Your task to perform on an android device: manage bookmarks in the chrome app Image 0: 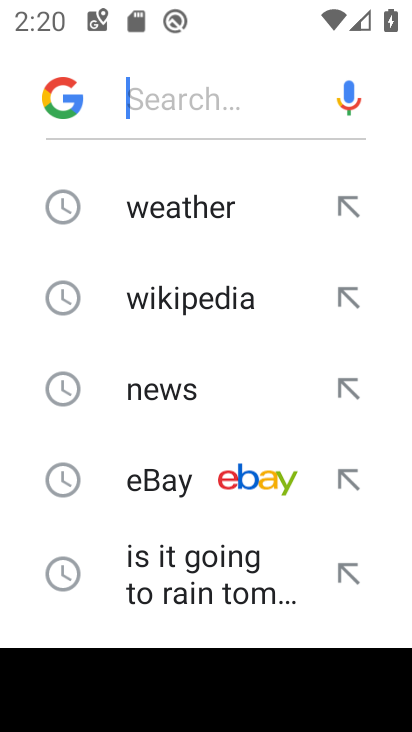
Step 0: press home button
Your task to perform on an android device: manage bookmarks in the chrome app Image 1: 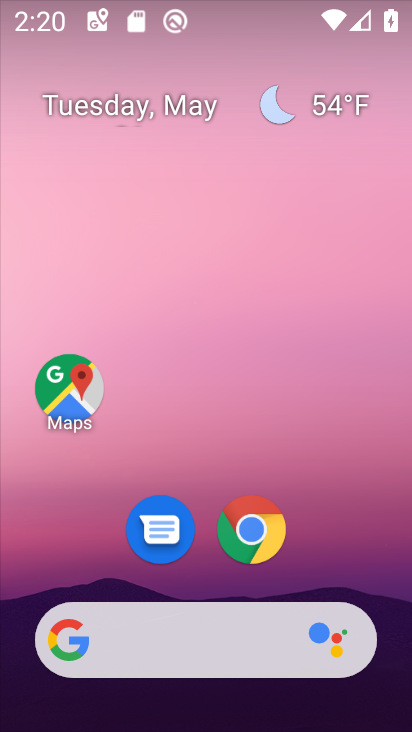
Step 1: drag from (308, 550) to (303, 140)
Your task to perform on an android device: manage bookmarks in the chrome app Image 2: 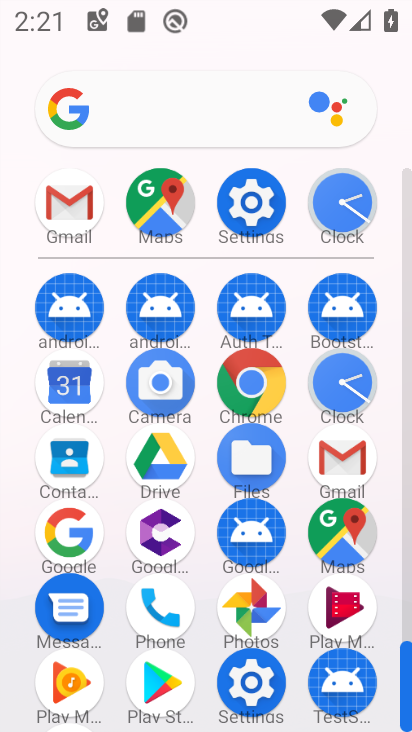
Step 2: click (268, 367)
Your task to perform on an android device: manage bookmarks in the chrome app Image 3: 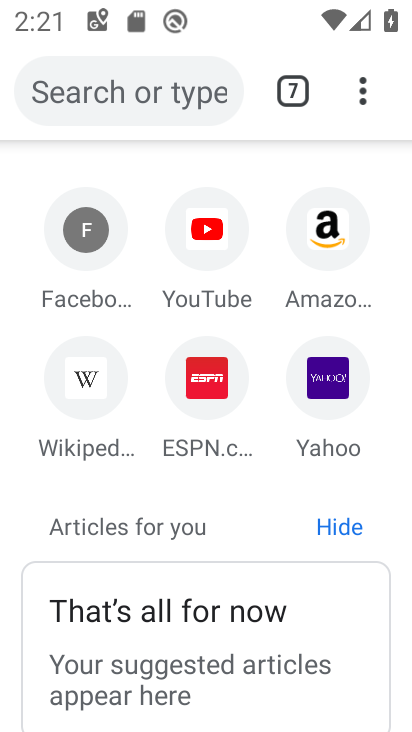
Step 3: click (378, 84)
Your task to perform on an android device: manage bookmarks in the chrome app Image 4: 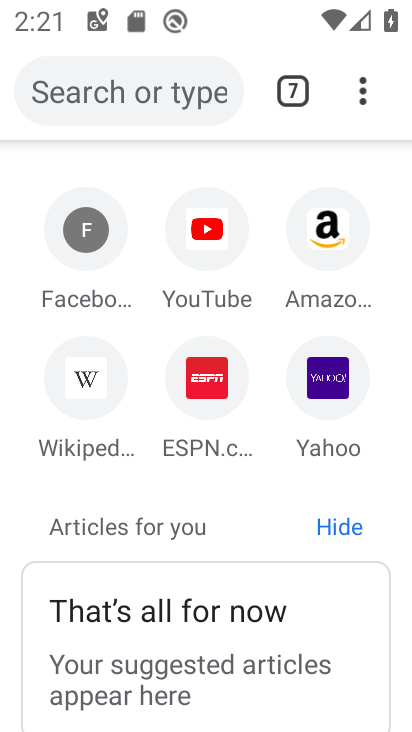
Step 4: click (360, 82)
Your task to perform on an android device: manage bookmarks in the chrome app Image 5: 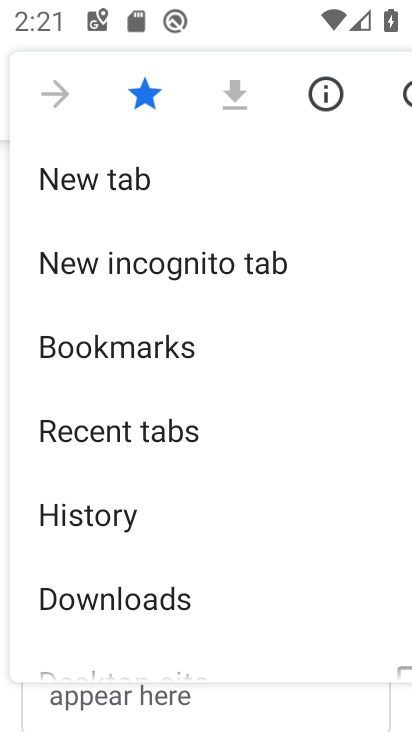
Step 5: click (123, 366)
Your task to perform on an android device: manage bookmarks in the chrome app Image 6: 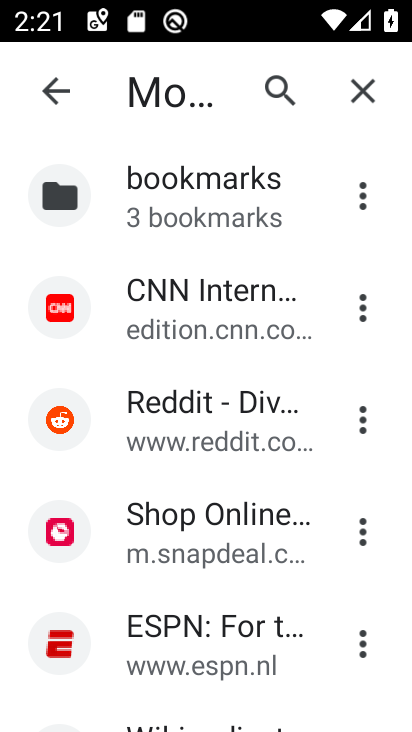
Step 6: click (172, 315)
Your task to perform on an android device: manage bookmarks in the chrome app Image 7: 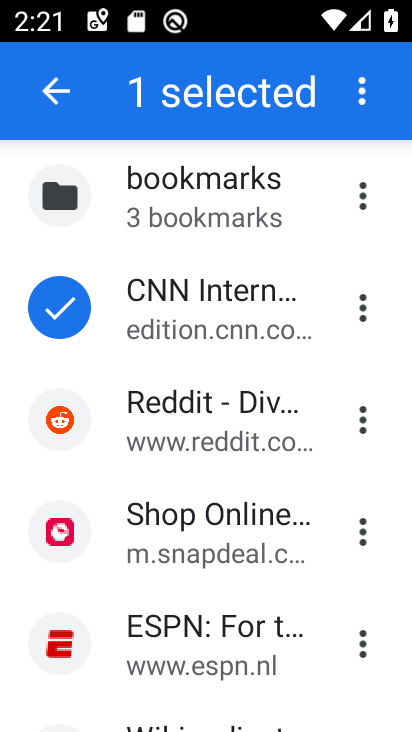
Step 7: click (141, 279)
Your task to perform on an android device: manage bookmarks in the chrome app Image 8: 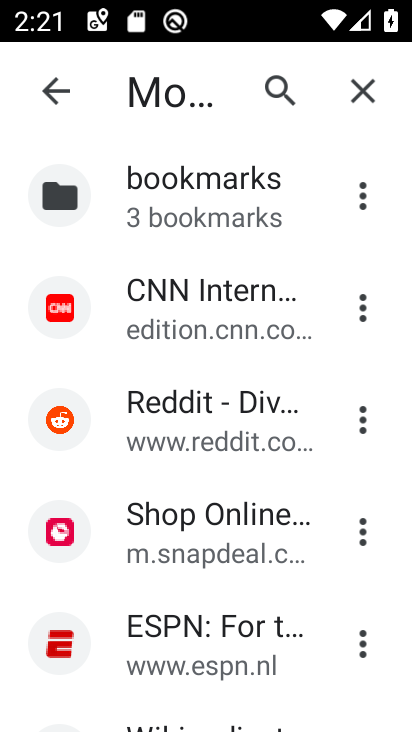
Step 8: click (167, 311)
Your task to perform on an android device: manage bookmarks in the chrome app Image 9: 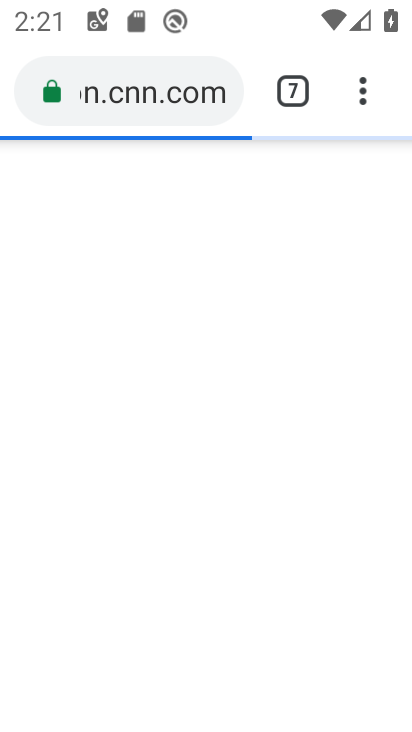
Step 9: click (359, 88)
Your task to perform on an android device: manage bookmarks in the chrome app Image 10: 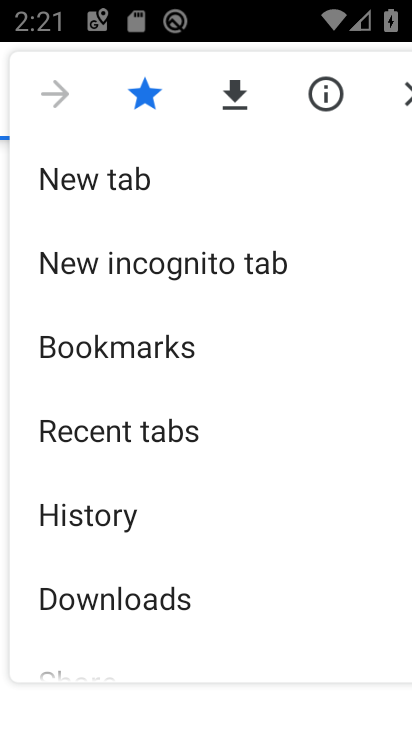
Step 10: click (116, 338)
Your task to perform on an android device: manage bookmarks in the chrome app Image 11: 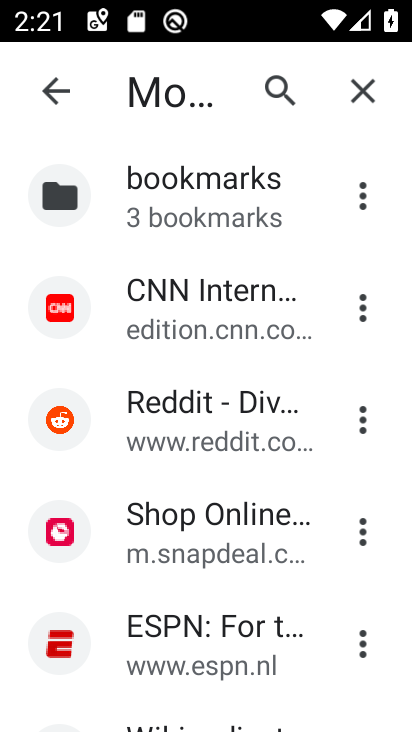
Step 11: click (48, 307)
Your task to perform on an android device: manage bookmarks in the chrome app Image 12: 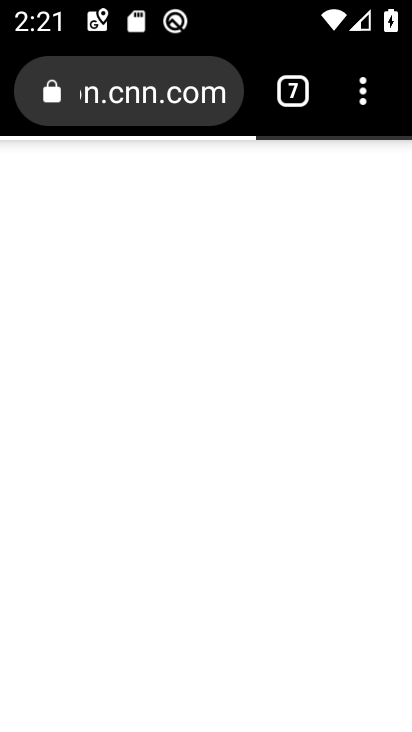
Step 12: click (375, 98)
Your task to perform on an android device: manage bookmarks in the chrome app Image 13: 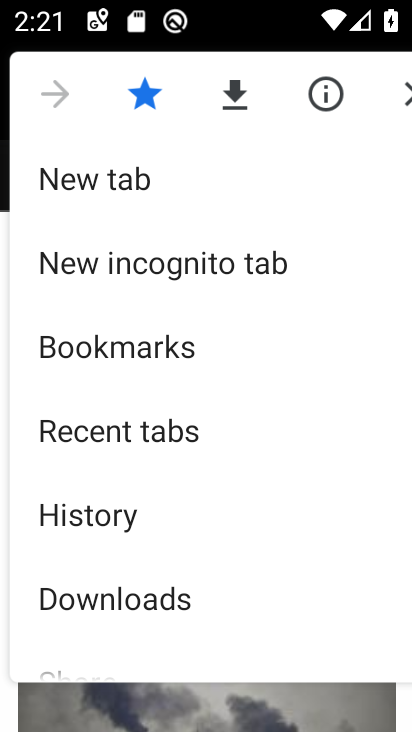
Step 13: click (130, 371)
Your task to perform on an android device: manage bookmarks in the chrome app Image 14: 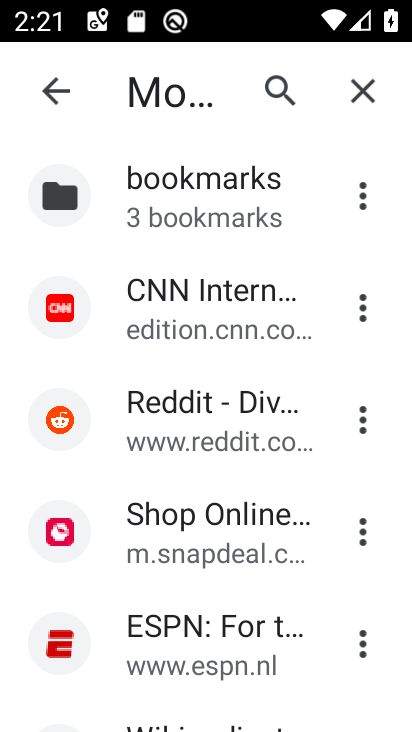
Step 14: click (224, 316)
Your task to perform on an android device: manage bookmarks in the chrome app Image 15: 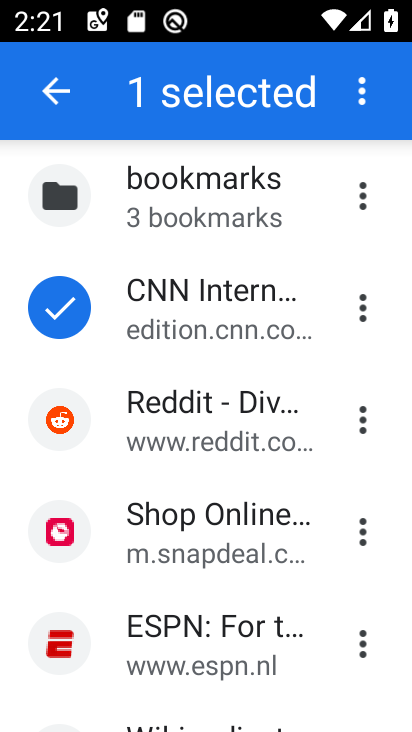
Step 15: click (367, 84)
Your task to perform on an android device: manage bookmarks in the chrome app Image 16: 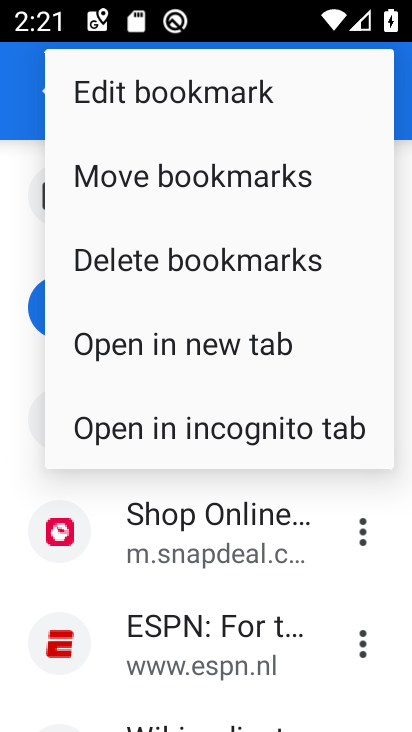
Step 16: click (185, 190)
Your task to perform on an android device: manage bookmarks in the chrome app Image 17: 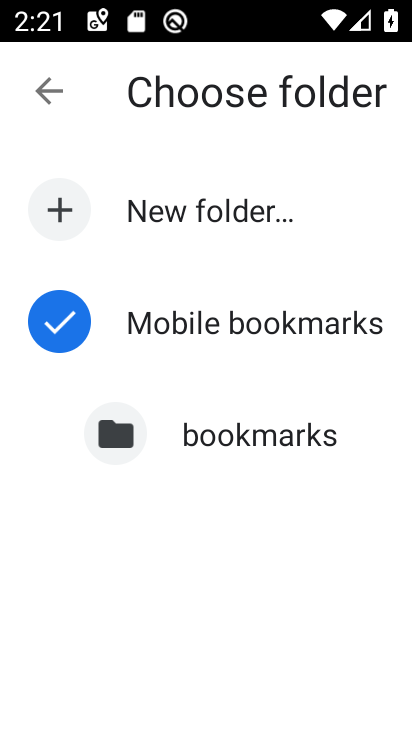
Step 17: click (228, 412)
Your task to perform on an android device: manage bookmarks in the chrome app Image 18: 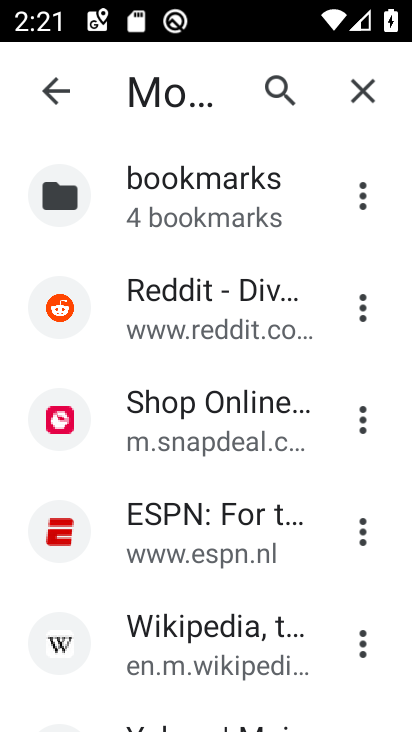
Step 18: task complete